Your task to perform on an android device: delete the emails in spam in the gmail app Image 0: 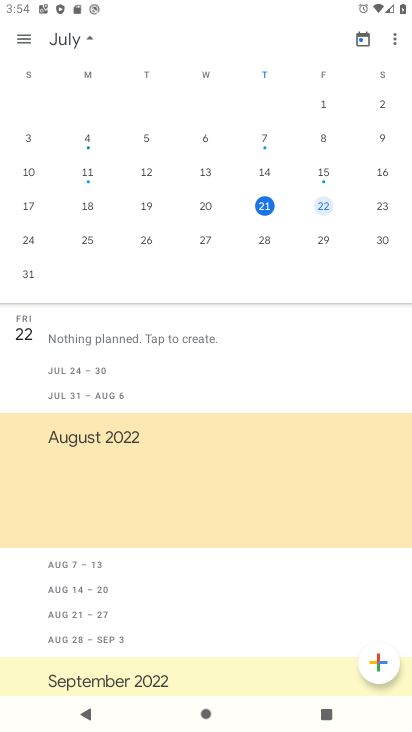
Step 0: press home button
Your task to perform on an android device: delete the emails in spam in the gmail app Image 1: 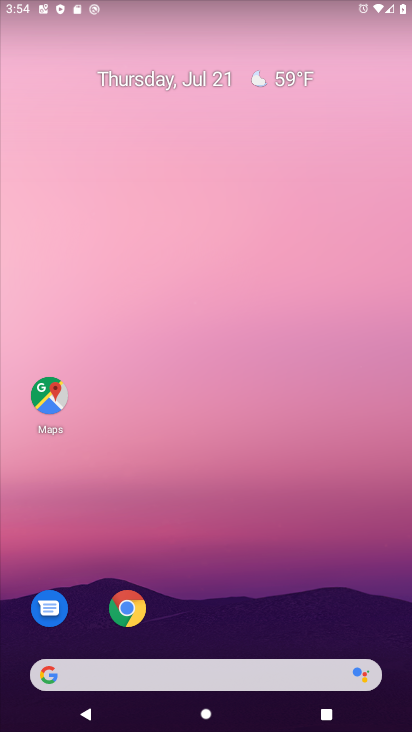
Step 1: drag from (244, 675) to (330, 5)
Your task to perform on an android device: delete the emails in spam in the gmail app Image 2: 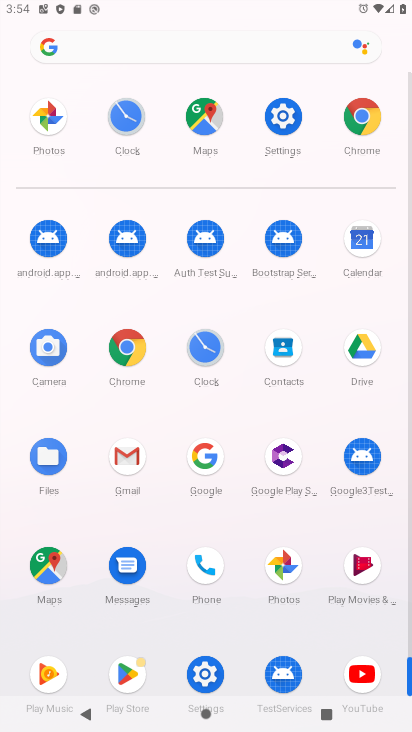
Step 2: click (135, 463)
Your task to perform on an android device: delete the emails in spam in the gmail app Image 3: 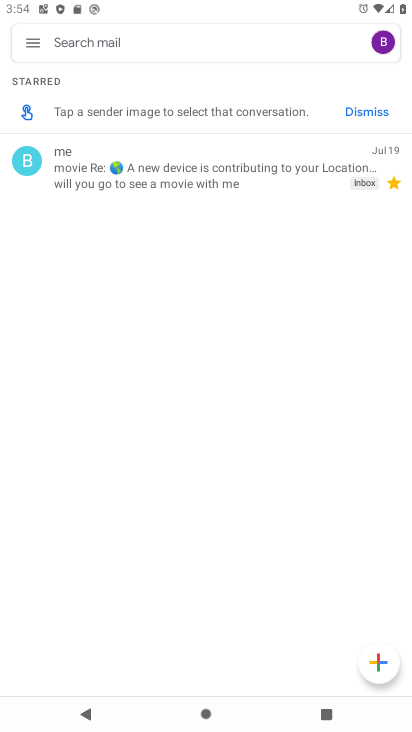
Step 3: click (31, 44)
Your task to perform on an android device: delete the emails in spam in the gmail app Image 4: 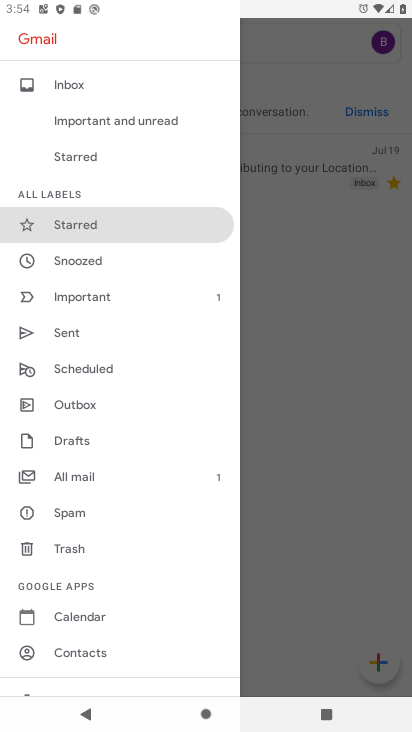
Step 4: click (71, 517)
Your task to perform on an android device: delete the emails in spam in the gmail app Image 5: 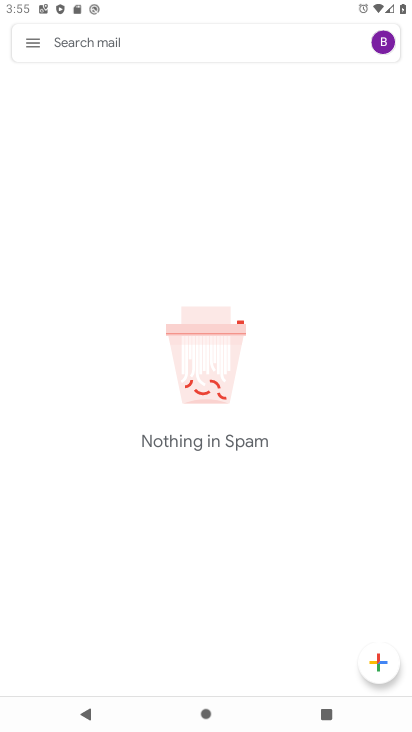
Step 5: task complete